Your task to perform on an android device: see tabs open on other devices in the chrome app Image 0: 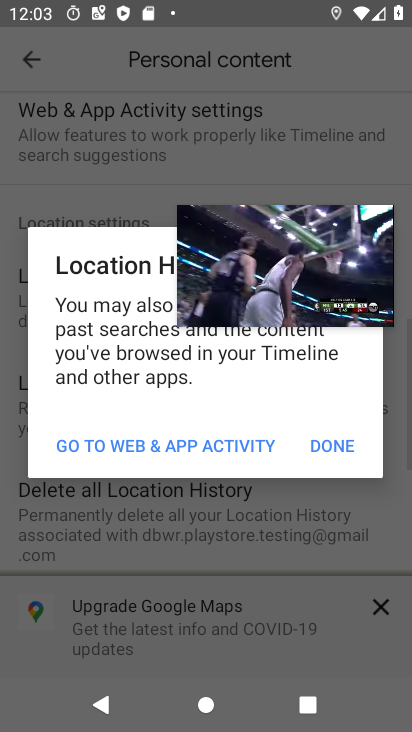
Step 0: press home button
Your task to perform on an android device: see tabs open on other devices in the chrome app Image 1: 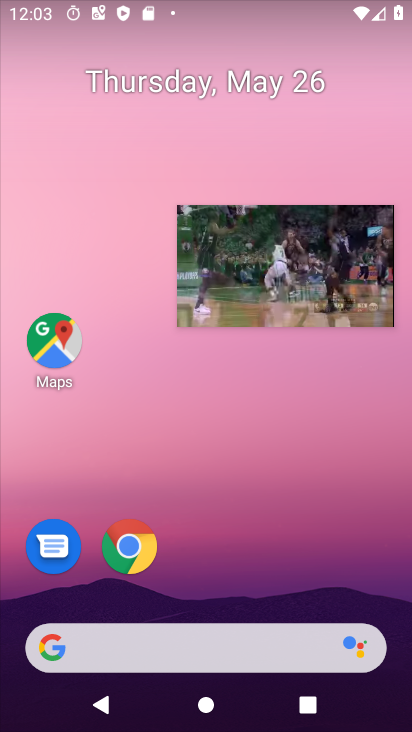
Step 1: click (133, 534)
Your task to perform on an android device: see tabs open on other devices in the chrome app Image 2: 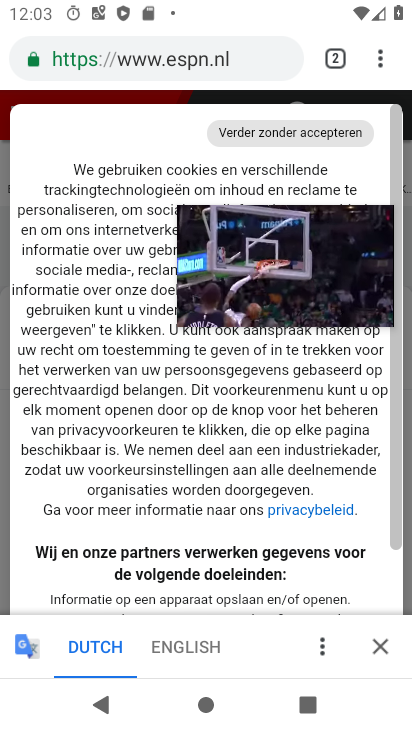
Step 2: click (365, 48)
Your task to perform on an android device: see tabs open on other devices in the chrome app Image 3: 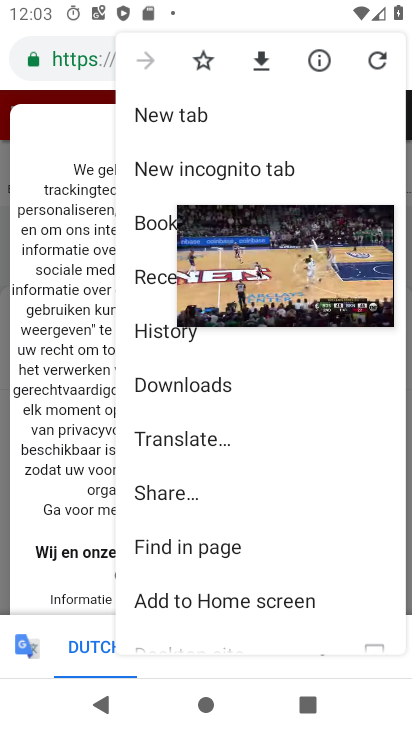
Step 3: click (149, 278)
Your task to perform on an android device: see tabs open on other devices in the chrome app Image 4: 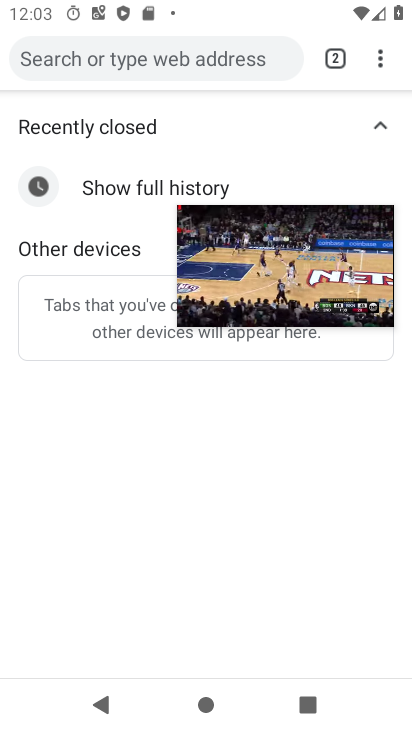
Step 4: task complete